Your task to perform on an android device: find photos in the google photos app Image 0: 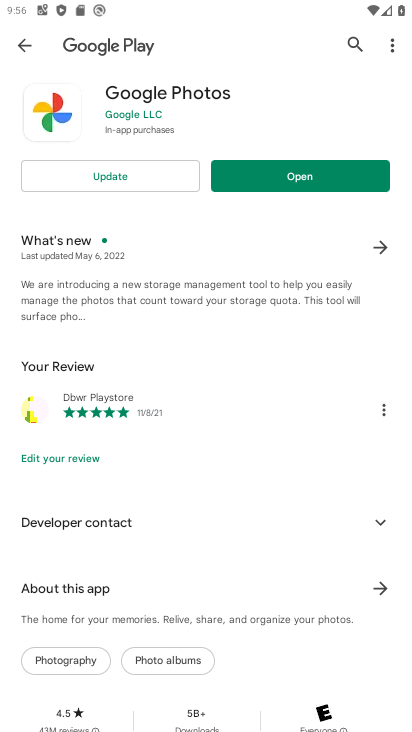
Step 0: press home button
Your task to perform on an android device: find photos in the google photos app Image 1: 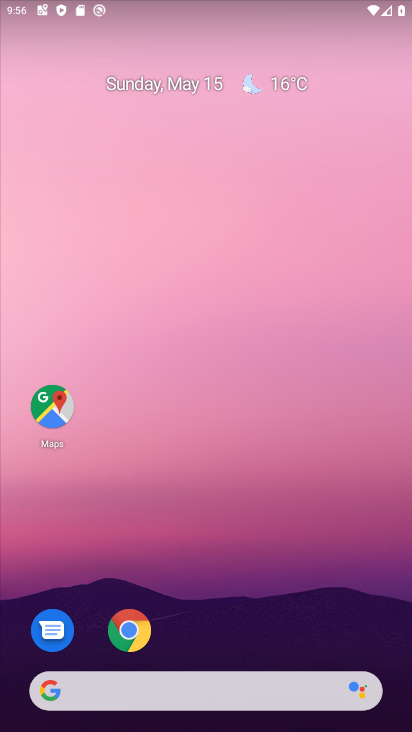
Step 1: drag from (218, 608) to (220, 125)
Your task to perform on an android device: find photos in the google photos app Image 2: 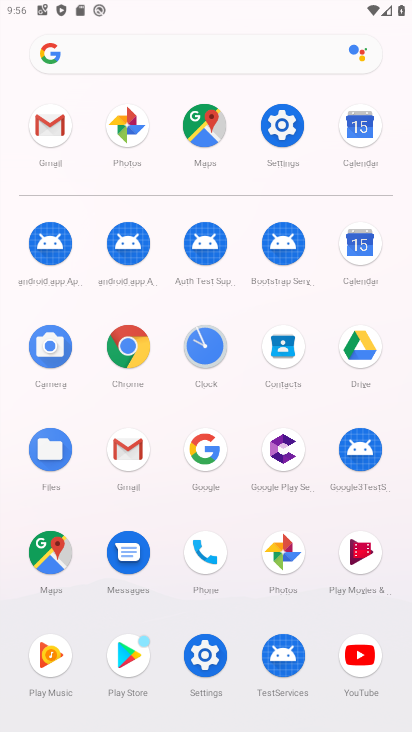
Step 2: click (131, 126)
Your task to perform on an android device: find photos in the google photos app Image 3: 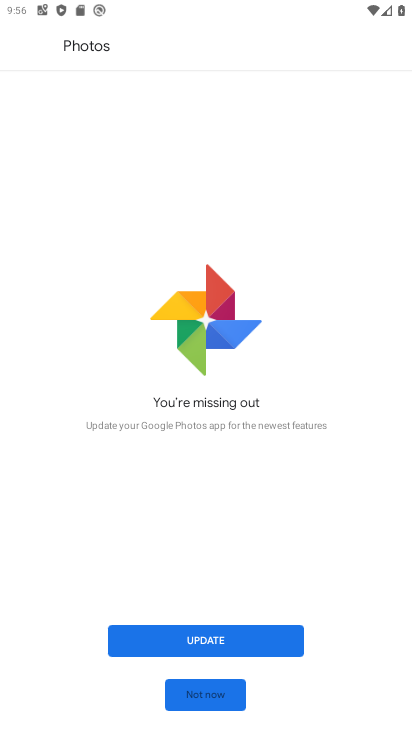
Step 3: click (207, 691)
Your task to perform on an android device: find photos in the google photos app Image 4: 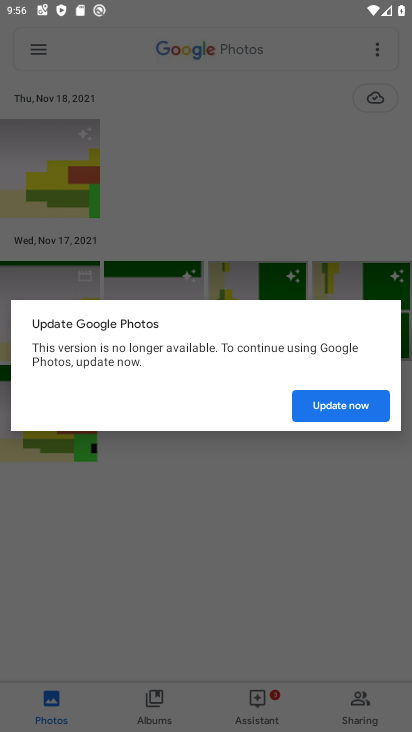
Step 4: click (342, 399)
Your task to perform on an android device: find photos in the google photos app Image 5: 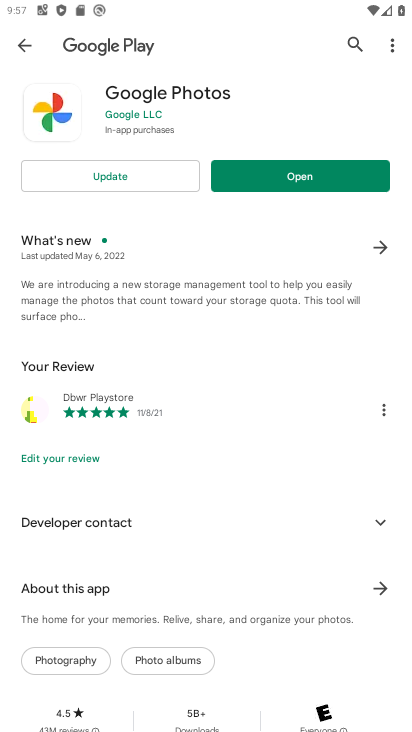
Step 5: click (232, 171)
Your task to perform on an android device: find photos in the google photos app Image 6: 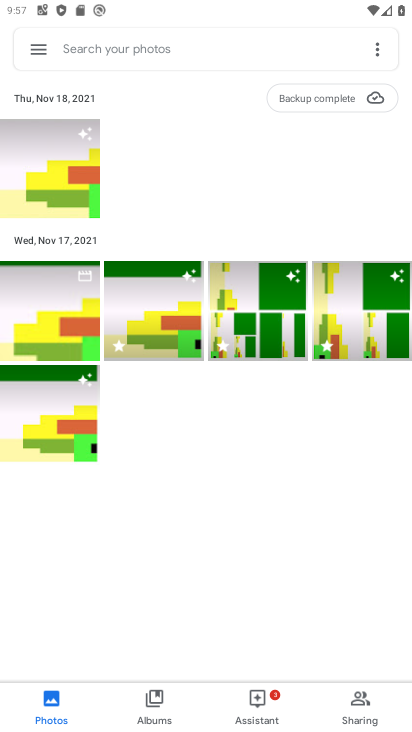
Step 6: click (102, 45)
Your task to perform on an android device: find photos in the google photos app Image 7: 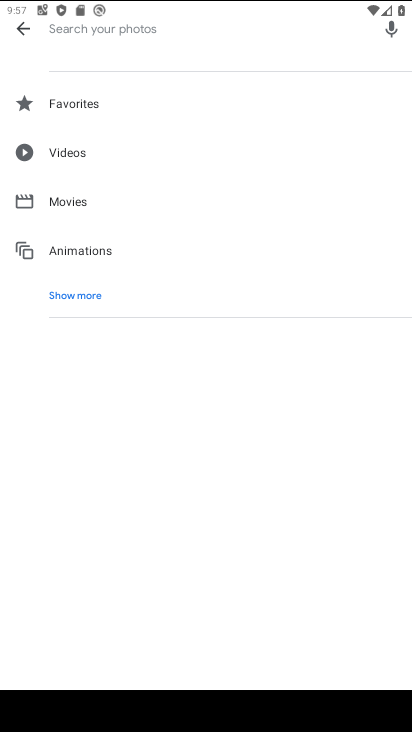
Step 7: type "aa"
Your task to perform on an android device: find photos in the google photos app Image 8: 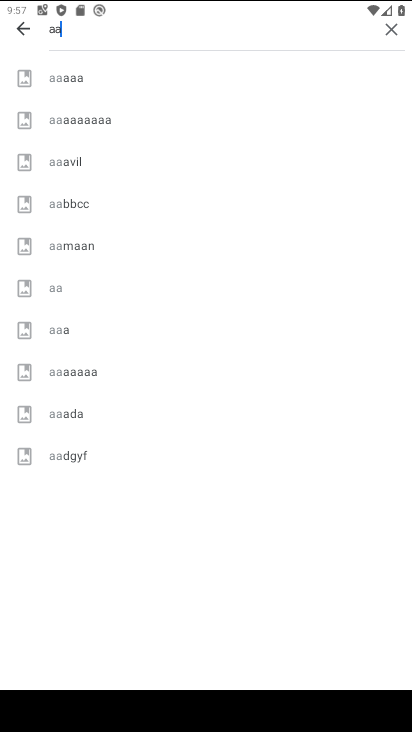
Step 8: click (77, 199)
Your task to perform on an android device: find photos in the google photos app Image 9: 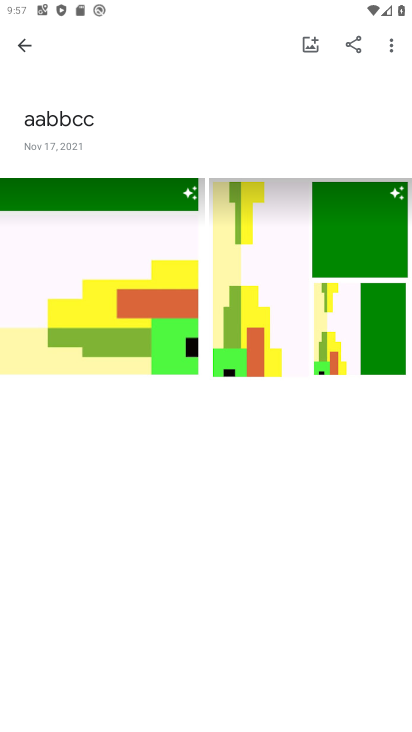
Step 9: task complete